Your task to perform on an android device: Go to Yahoo.com Image 0: 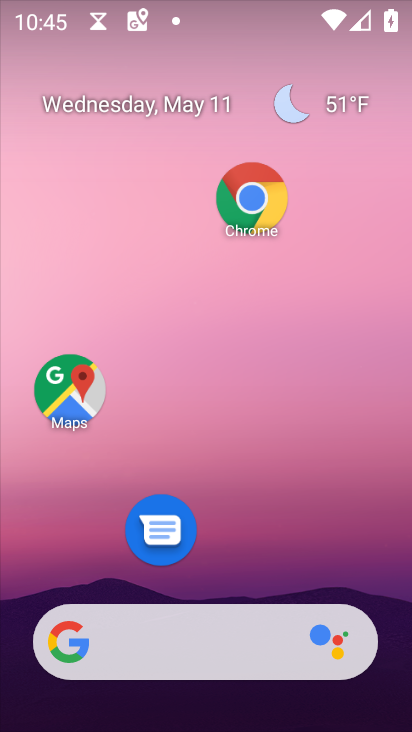
Step 0: click (278, 201)
Your task to perform on an android device: Go to Yahoo.com Image 1: 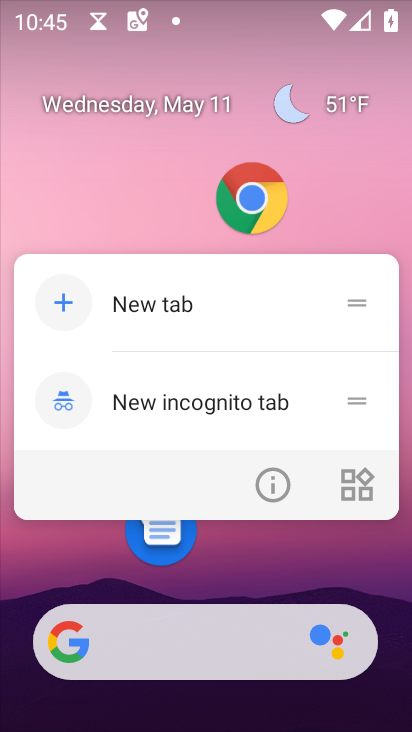
Step 1: click (262, 219)
Your task to perform on an android device: Go to Yahoo.com Image 2: 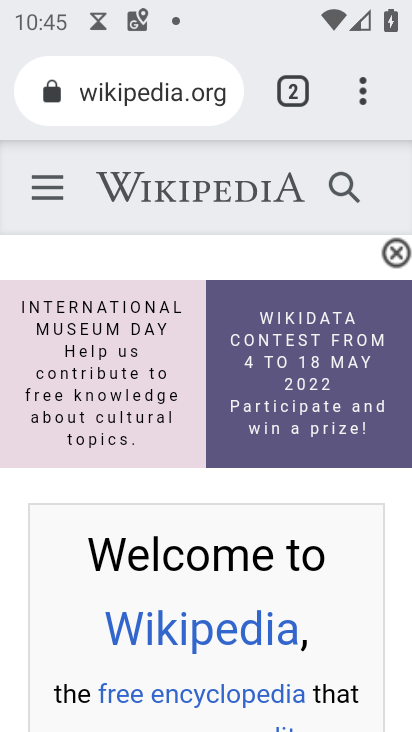
Step 2: click (298, 90)
Your task to perform on an android device: Go to Yahoo.com Image 3: 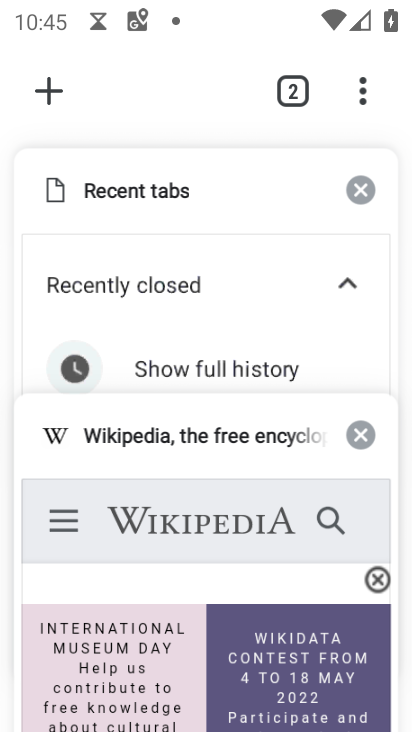
Step 3: click (366, 194)
Your task to perform on an android device: Go to Yahoo.com Image 4: 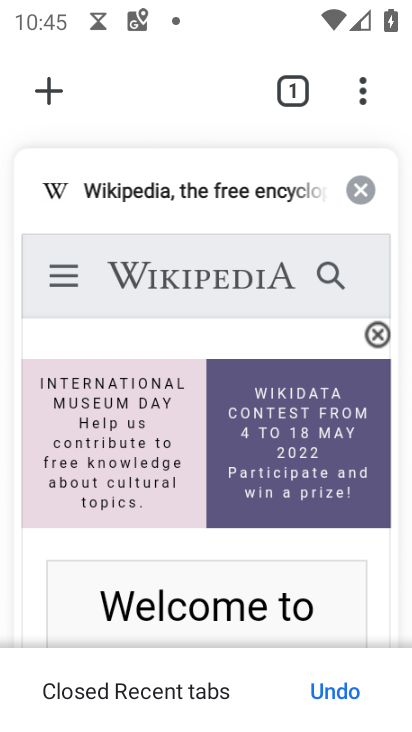
Step 4: click (362, 191)
Your task to perform on an android device: Go to Yahoo.com Image 5: 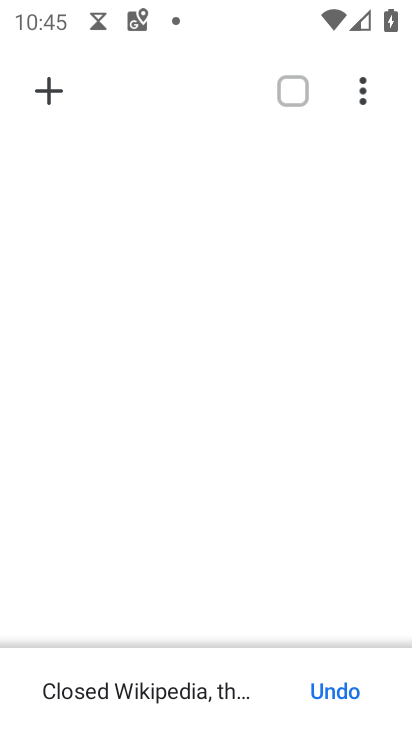
Step 5: click (45, 90)
Your task to perform on an android device: Go to Yahoo.com Image 6: 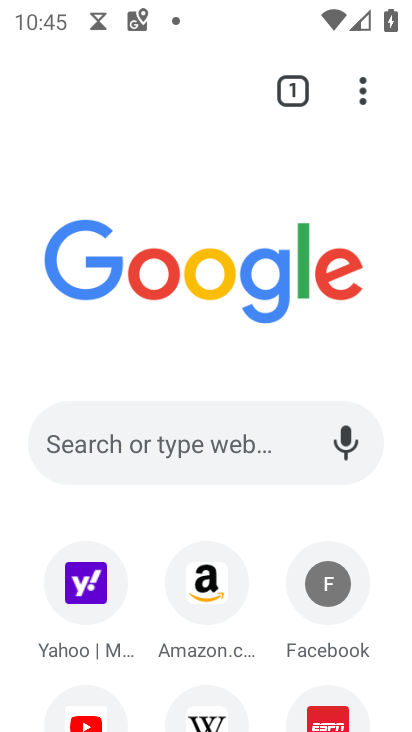
Step 6: click (63, 583)
Your task to perform on an android device: Go to Yahoo.com Image 7: 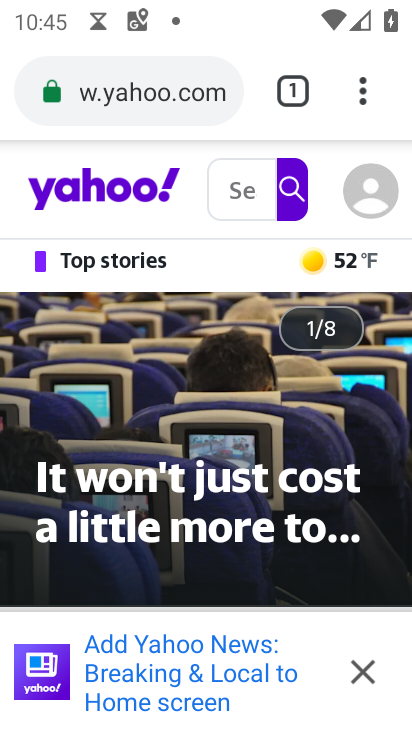
Step 7: task complete